Your task to perform on an android device: find photos in the google photos app Image 0: 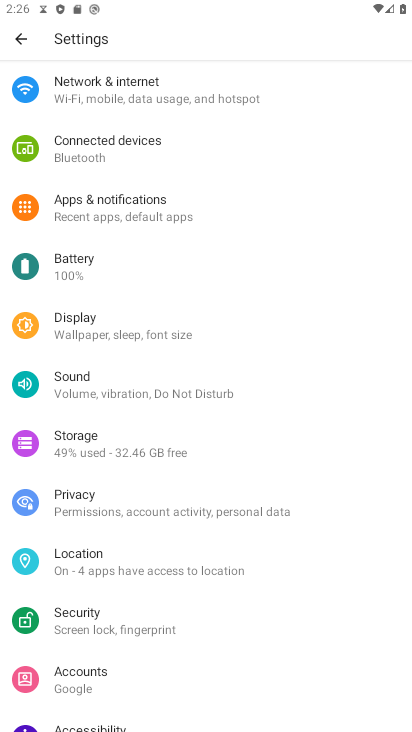
Step 0: press home button
Your task to perform on an android device: find photos in the google photos app Image 1: 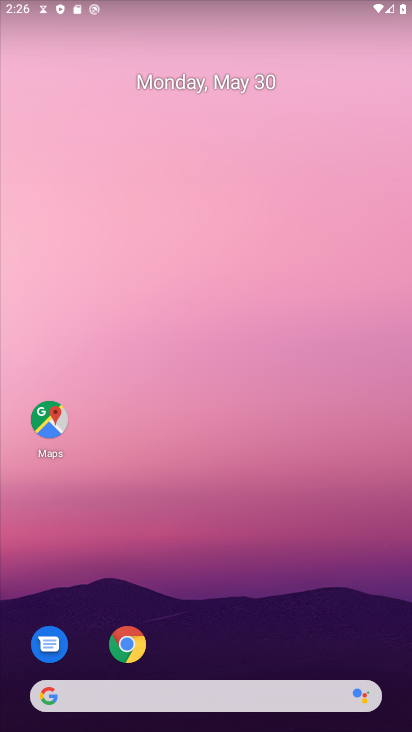
Step 1: drag from (317, 566) to (293, 63)
Your task to perform on an android device: find photos in the google photos app Image 2: 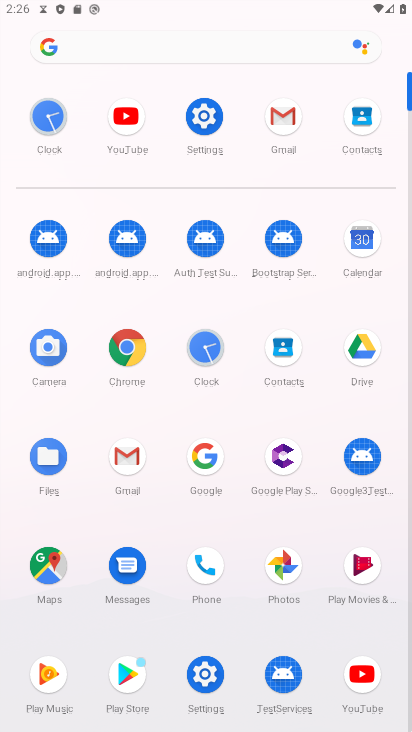
Step 2: click (279, 565)
Your task to perform on an android device: find photos in the google photos app Image 3: 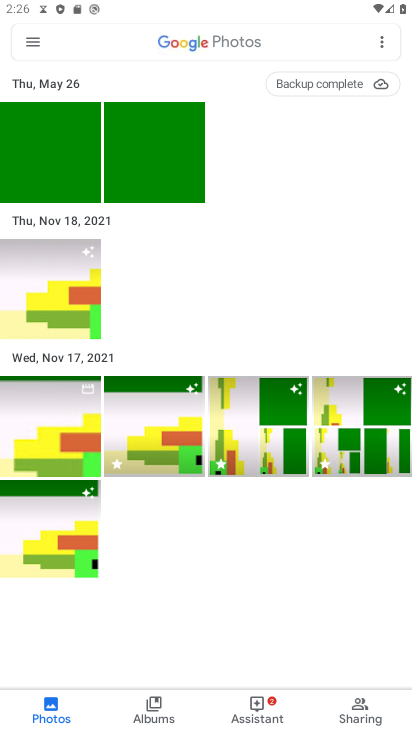
Step 3: task complete